Your task to perform on an android device: turn off wifi Image 0: 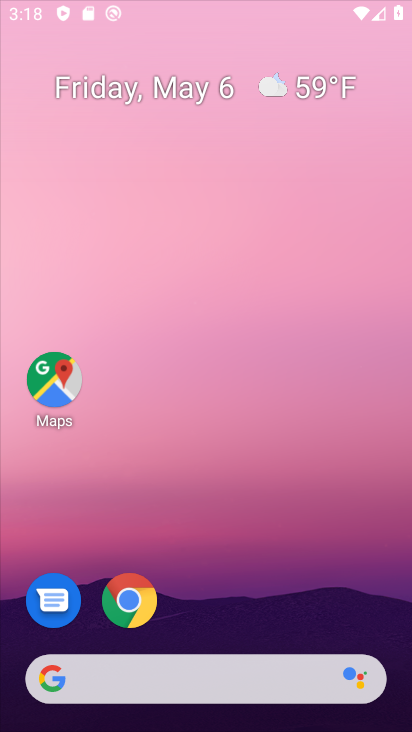
Step 0: drag from (233, 618) to (302, 15)
Your task to perform on an android device: turn off wifi Image 1: 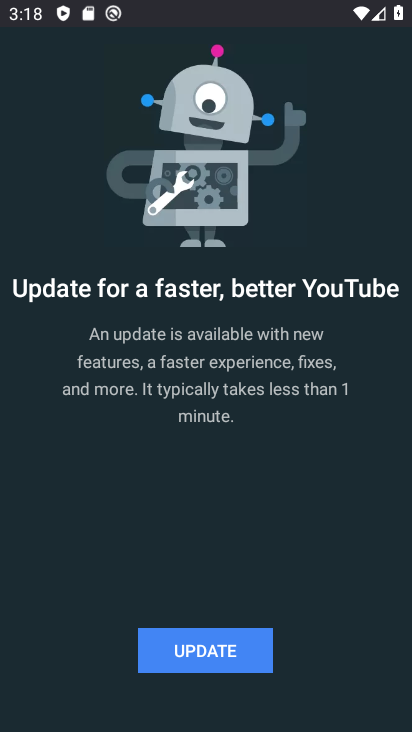
Step 1: press home button
Your task to perform on an android device: turn off wifi Image 2: 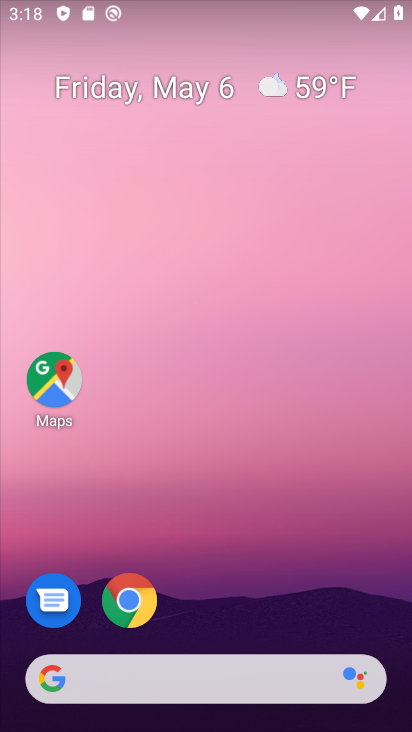
Step 2: drag from (211, 617) to (267, 62)
Your task to perform on an android device: turn off wifi Image 3: 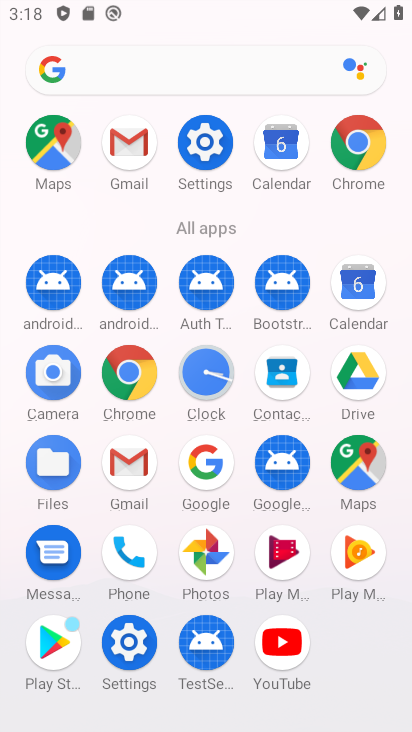
Step 3: click (222, 147)
Your task to perform on an android device: turn off wifi Image 4: 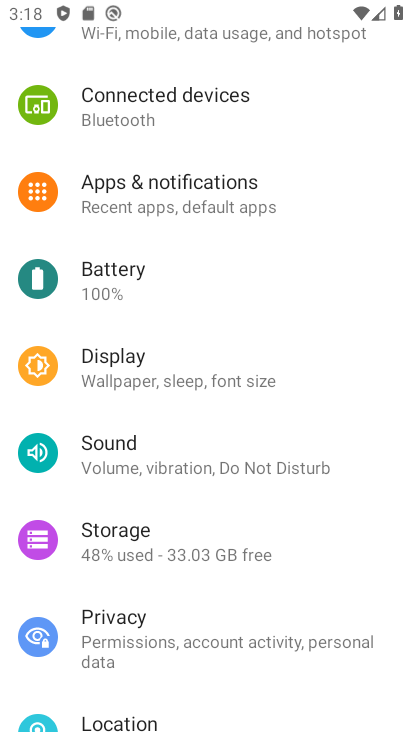
Step 4: drag from (210, 144) to (219, 709)
Your task to perform on an android device: turn off wifi Image 5: 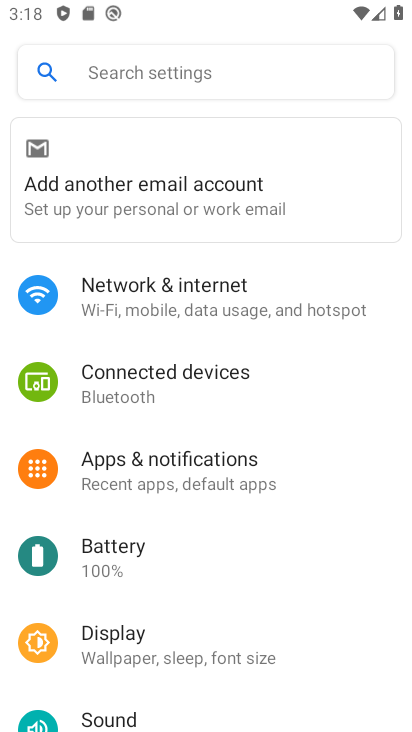
Step 5: click (223, 307)
Your task to perform on an android device: turn off wifi Image 6: 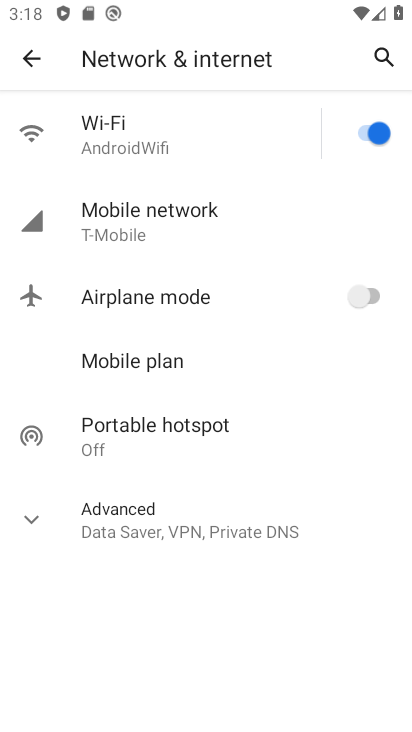
Step 6: click (370, 138)
Your task to perform on an android device: turn off wifi Image 7: 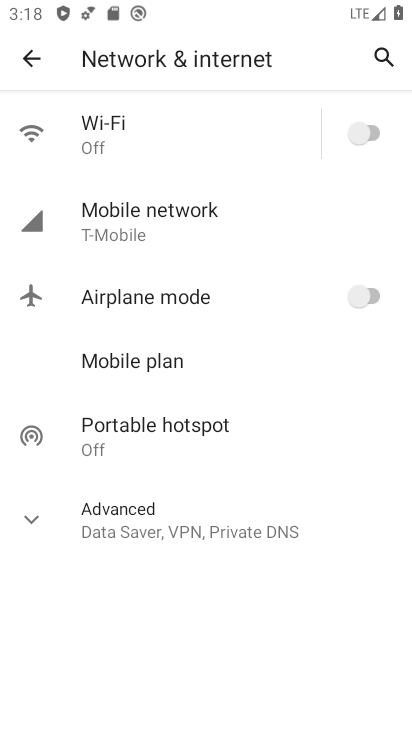
Step 7: task complete